Your task to perform on an android device: check google app version Image 0: 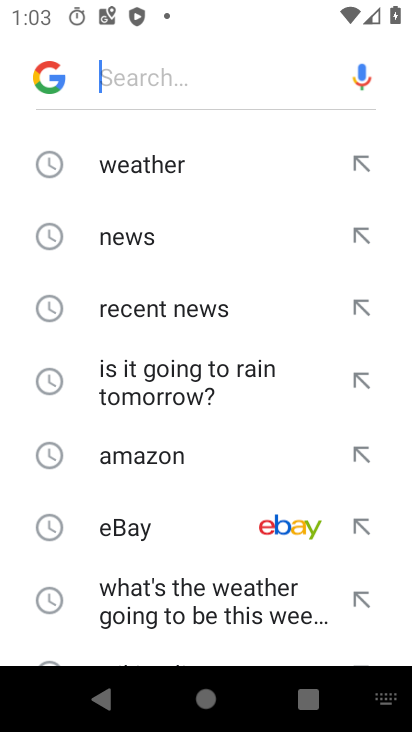
Step 0: press home button
Your task to perform on an android device: check google app version Image 1: 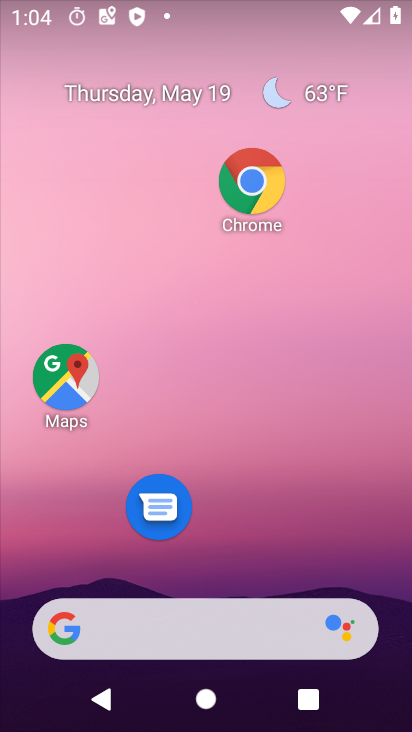
Step 1: click (83, 631)
Your task to perform on an android device: check google app version Image 2: 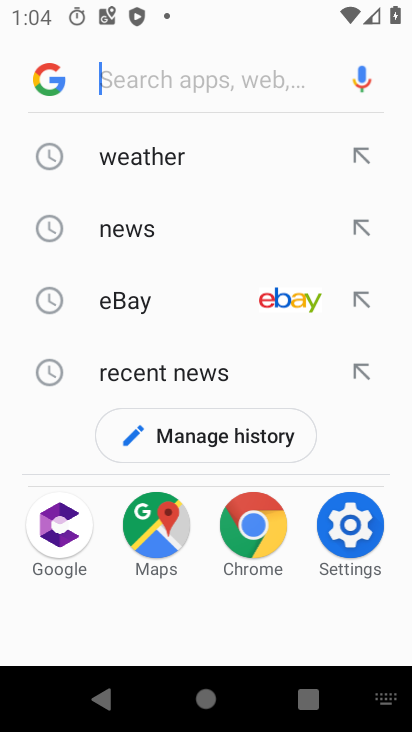
Step 2: click (57, 70)
Your task to perform on an android device: check google app version Image 3: 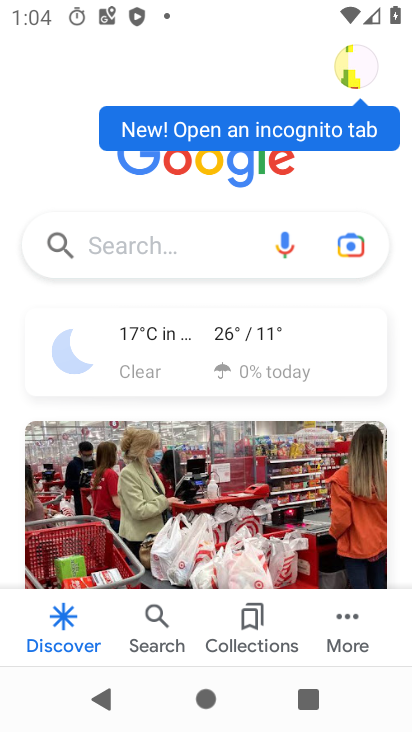
Step 3: click (341, 634)
Your task to perform on an android device: check google app version Image 4: 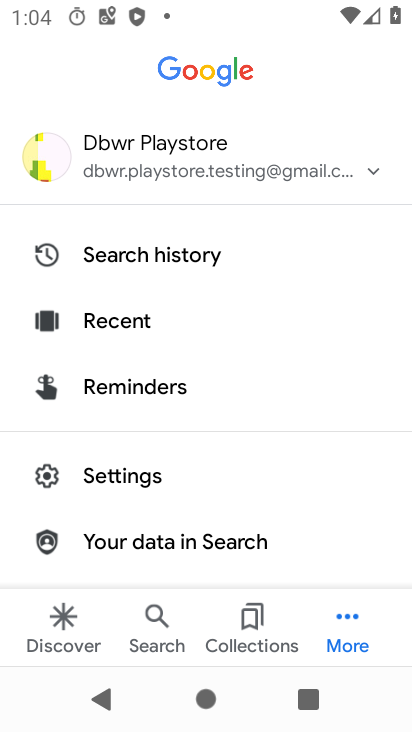
Step 4: drag from (152, 548) to (125, 209)
Your task to perform on an android device: check google app version Image 5: 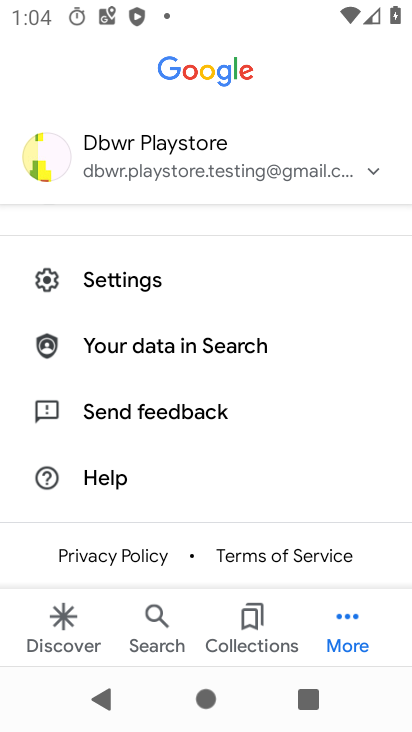
Step 5: drag from (224, 275) to (276, 502)
Your task to perform on an android device: check google app version Image 6: 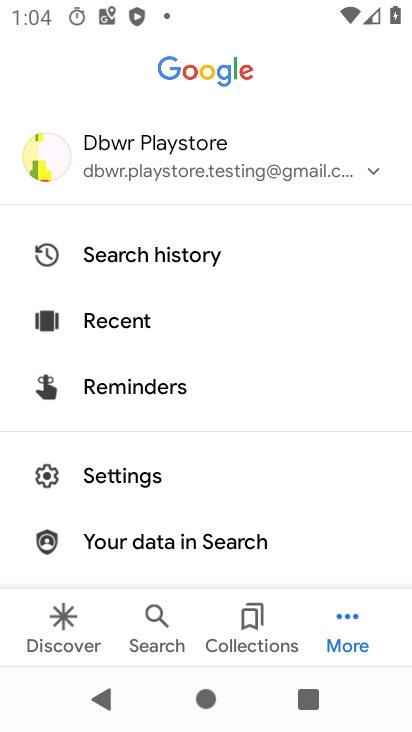
Step 6: click (117, 468)
Your task to perform on an android device: check google app version Image 7: 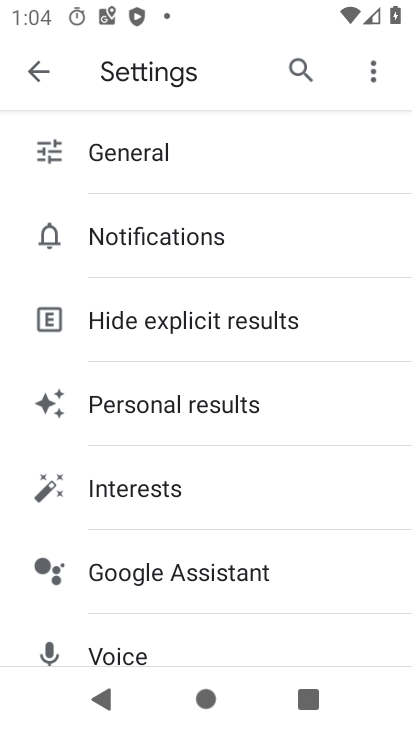
Step 7: click (237, 195)
Your task to perform on an android device: check google app version Image 8: 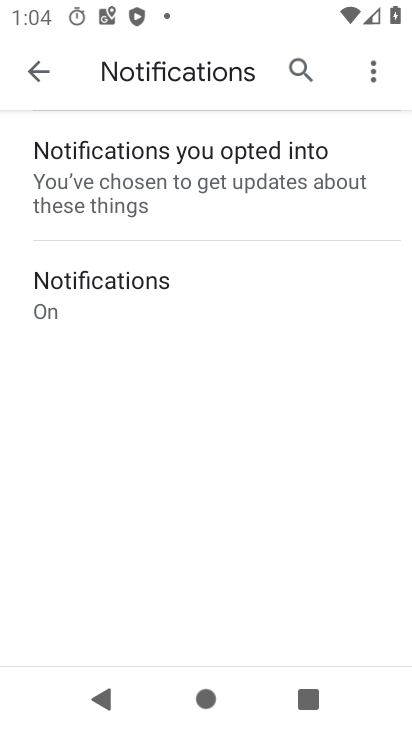
Step 8: click (44, 70)
Your task to perform on an android device: check google app version Image 9: 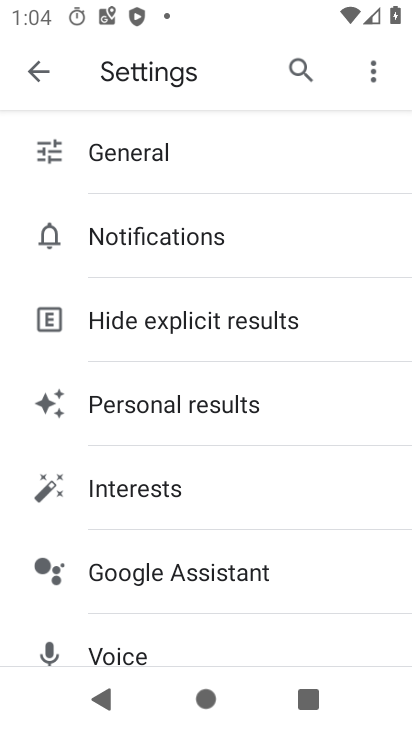
Step 9: drag from (178, 621) to (34, 153)
Your task to perform on an android device: check google app version Image 10: 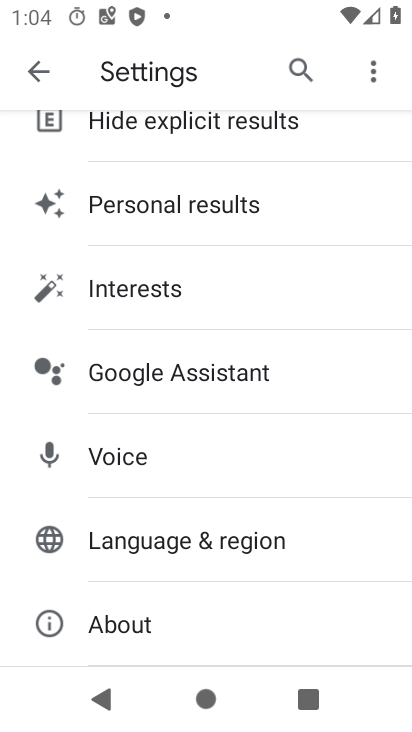
Step 10: click (126, 628)
Your task to perform on an android device: check google app version Image 11: 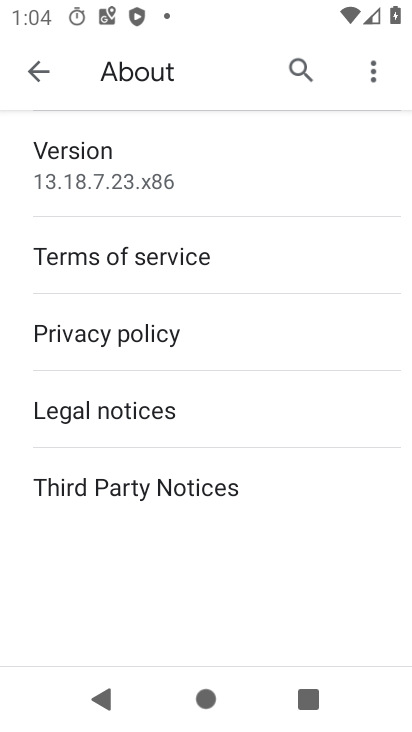
Step 11: task complete